Your task to perform on an android device: change the clock display to digital Image 0: 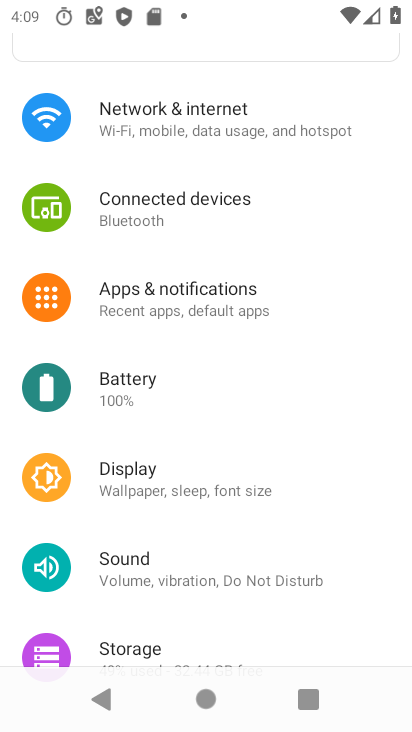
Step 0: press home button
Your task to perform on an android device: change the clock display to digital Image 1: 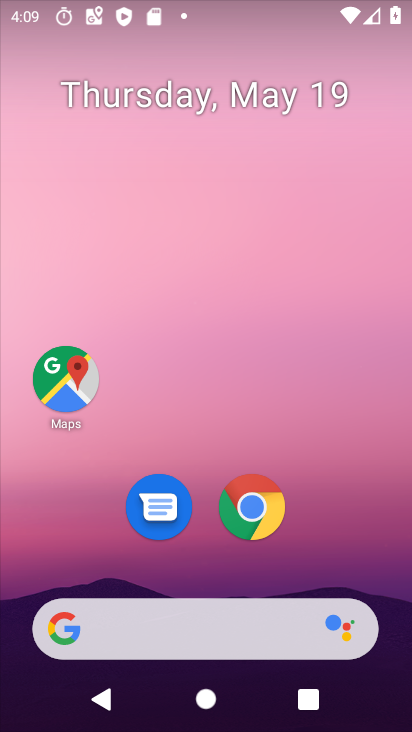
Step 1: drag from (389, 372) to (400, 248)
Your task to perform on an android device: change the clock display to digital Image 2: 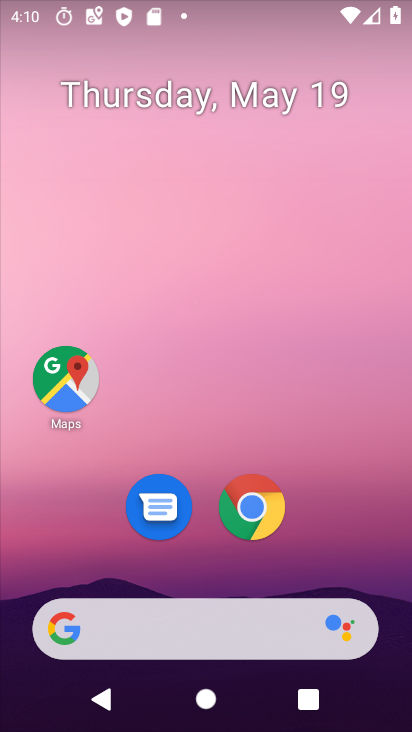
Step 2: drag from (396, 702) to (385, 433)
Your task to perform on an android device: change the clock display to digital Image 3: 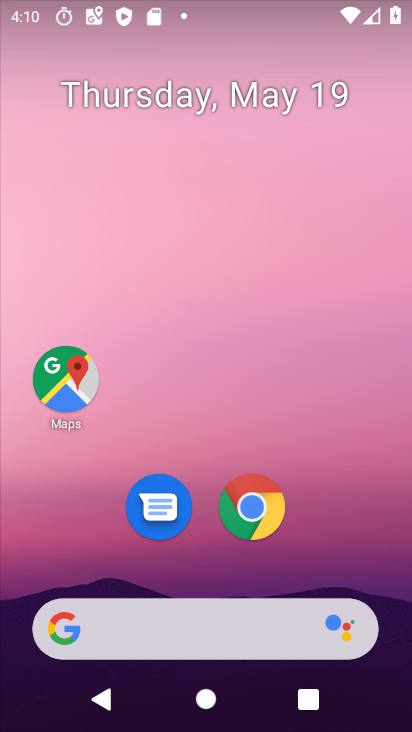
Step 3: drag from (387, 708) to (346, 317)
Your task to perform on an android device: change the clock display to digital Image 4: 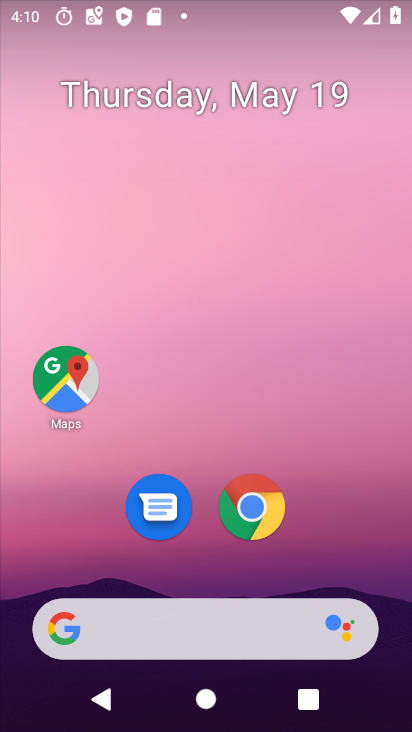
Step 4: drag from (379, 522) to (346, 137)
Your task to perform on an android device: change the clock display to digital Image 5: 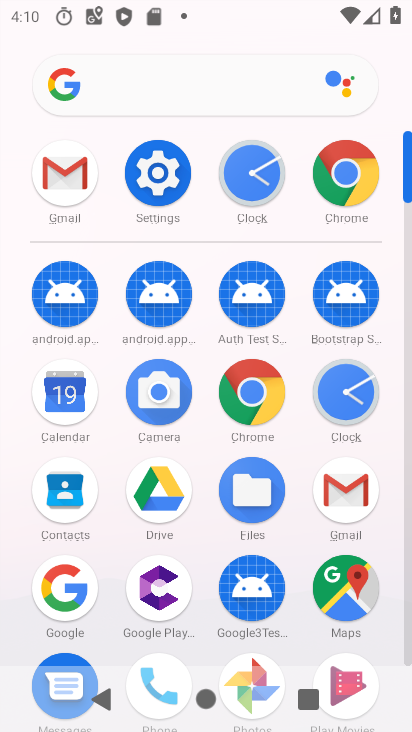
Step 5: click (346, 407)
Your task to perform on an android device: change the clock display to digital Image 6: 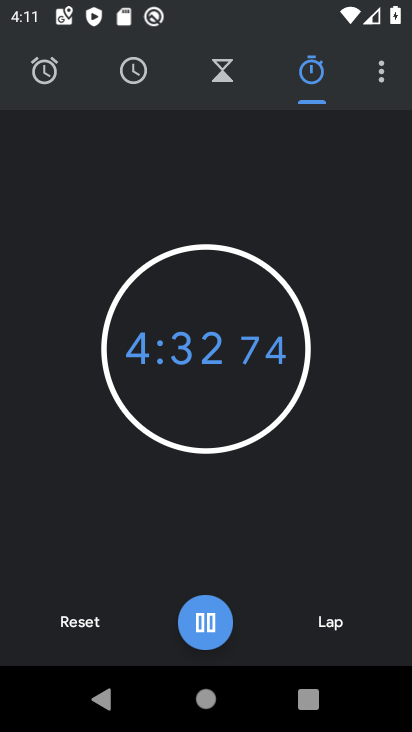
Step 6: click (382, 80)
Your task to perform on an android device: change the clock display to digital Image 7: 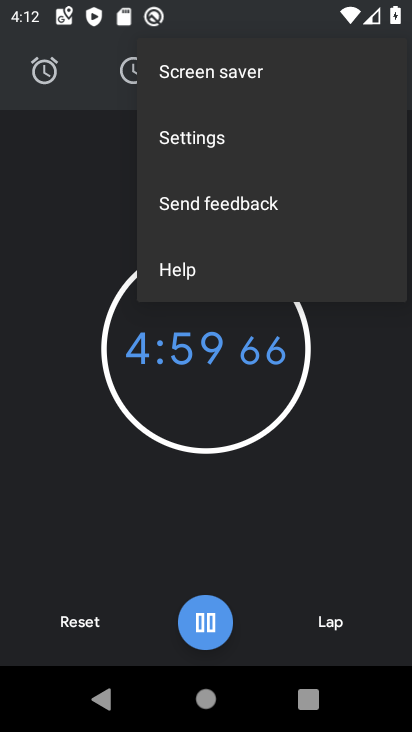
Step 7: click (193, 129)
Your task to perform on an android device: change the clock display to digital Image 8: 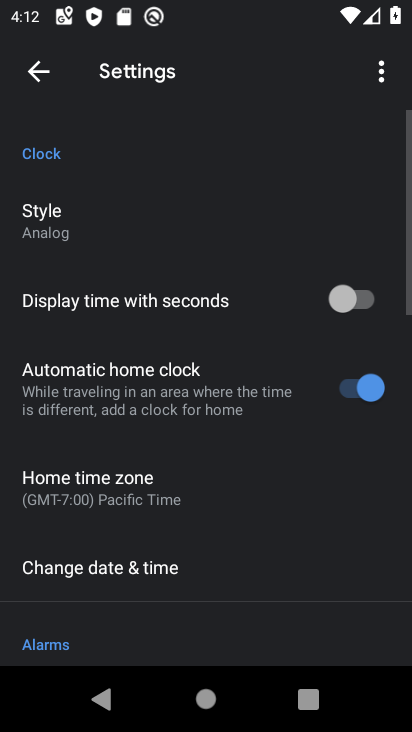
Step 8: click (59, 217)
Your task to perform on an android device: change the clock display to digital Image 9: 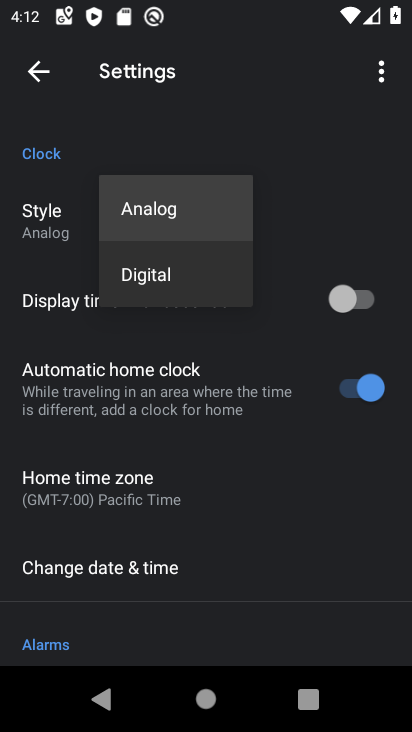
Step 9: click (154, 271)
Your task to perform on an android device: change the clock display to digital Image 10: 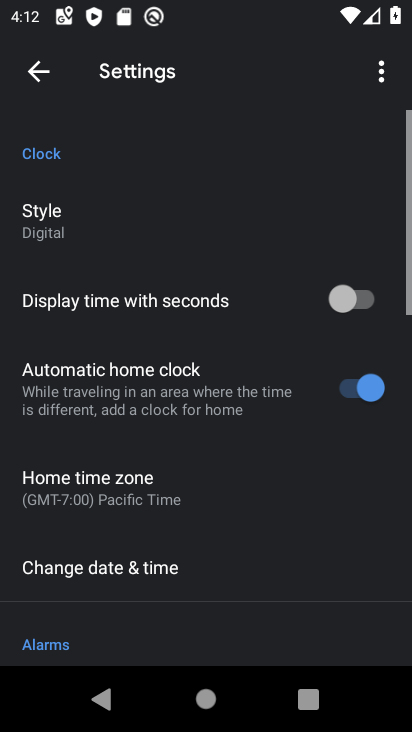
Step 10: task complete